Your task to perform on an android device: turn off notifications settings in the gmail app Image 0: 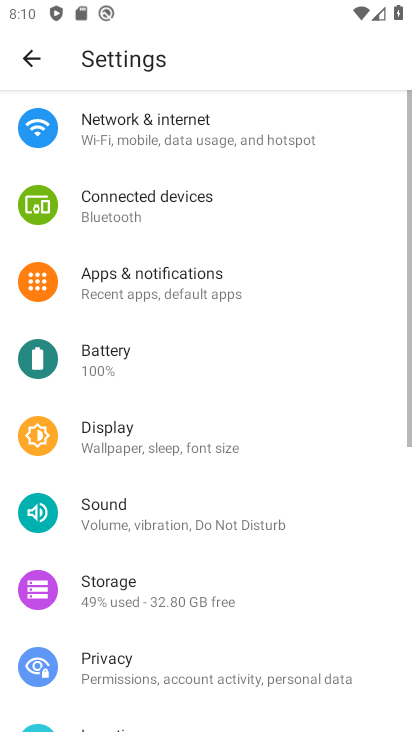
Step 0: press home button
Your task to perform on an android device: turn off notifications settings in the gmail app Image 1: 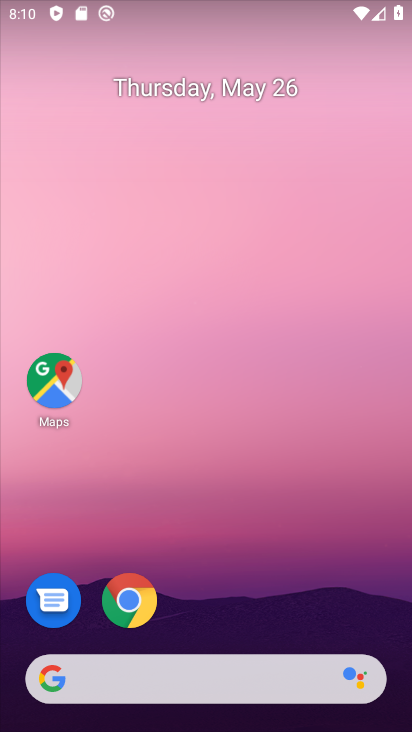
Step 1: drag from (320, 490) to (322, 244)
Your task to perform on an android device: turn off notifications settings in the gmail app Image 2: 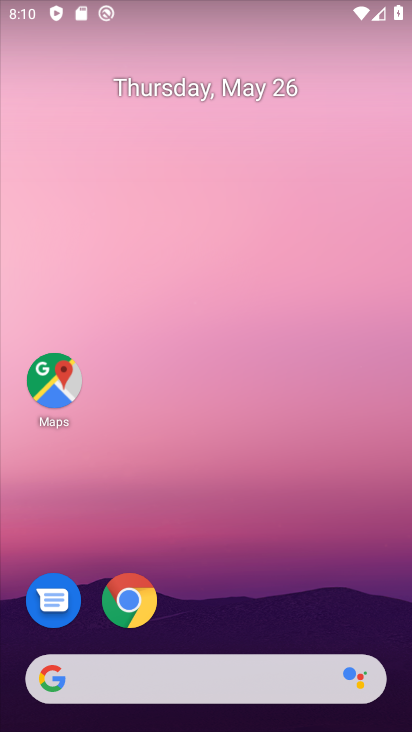
Step 2: drag from (260, 578) to (285, 248)
Your task to perform on an android device: turn off notifications settings in the gmail app Image 3: 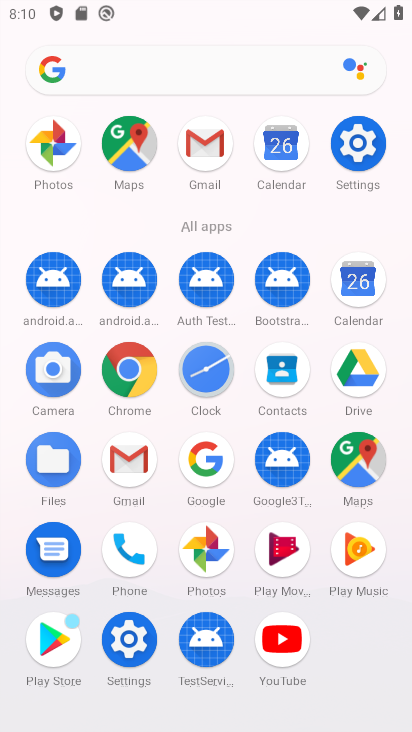
Step 3: click (214, 139)
Your task to perform on an android device: turn off notifications settings in the gmail app Image 4: 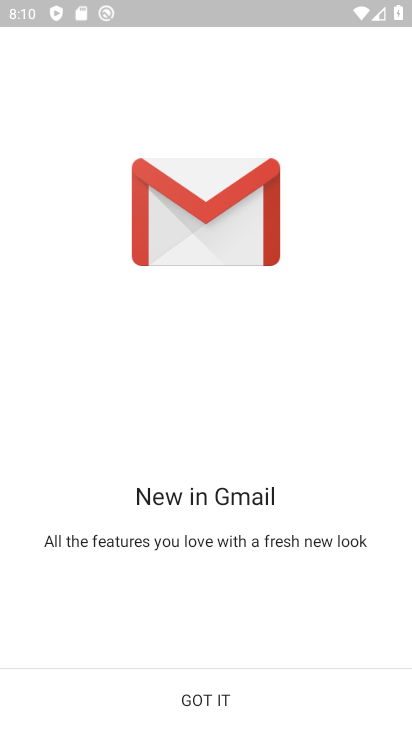
Step 4: click (206, 713)
Your task to perform on an android device: turn off notifications settings in the gmail app Image 5: 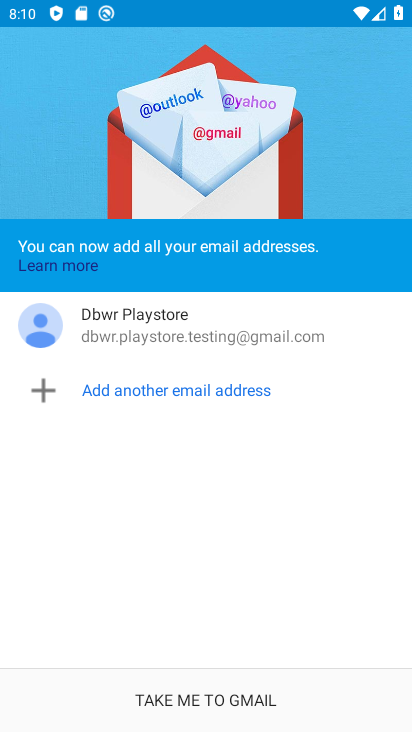
Step 5: click (204, 703)
Your task to perform on an android device: turn off notifications settings in the gmail app Image 6: 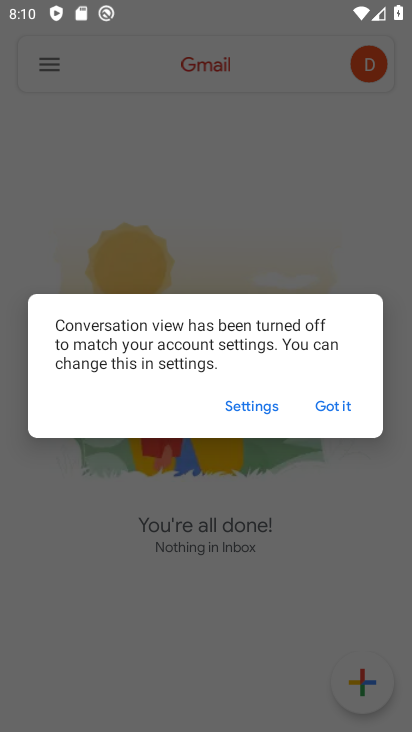
Step 6: click (260, 413)
Your task to perform on an android device: turn off notifications settings in the gmail app Image 7: 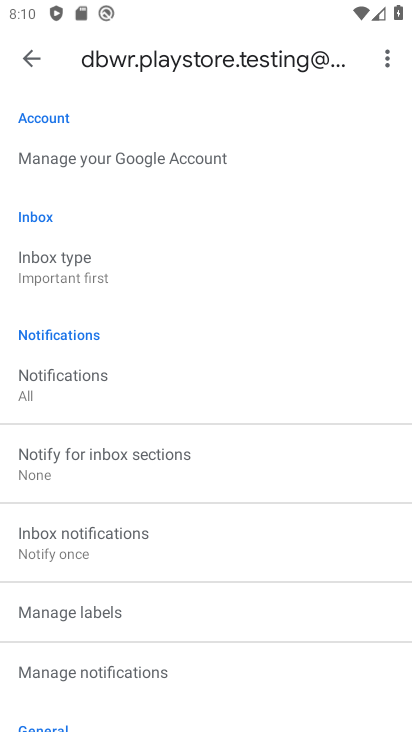
Step 7: click (76, 377)
Your task to perform on an android device: turn off notifications settings in the gmail app Image 8: 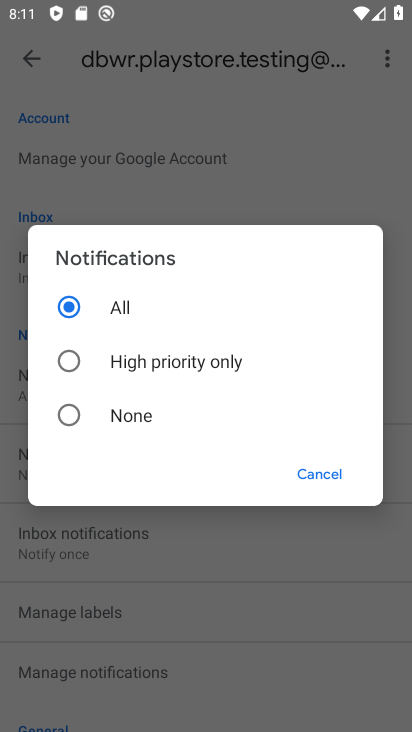
Step 8: click (101, 415)
Your task to perform on an android device: turn off notifications settings in the gmail app Image 9: 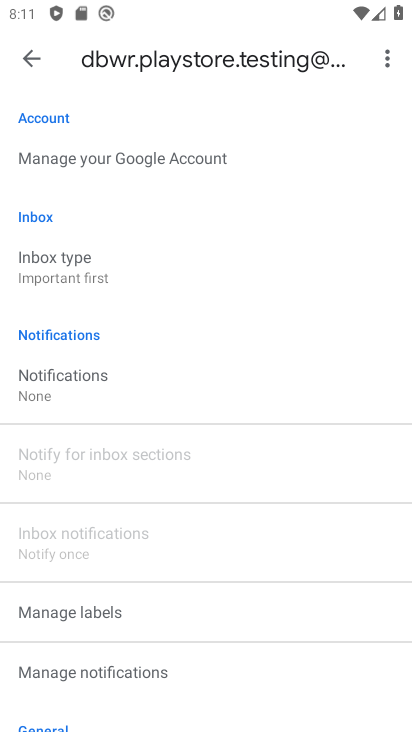
Step 9: task complete